Your task to perform on an android device: Open Google Image 0: 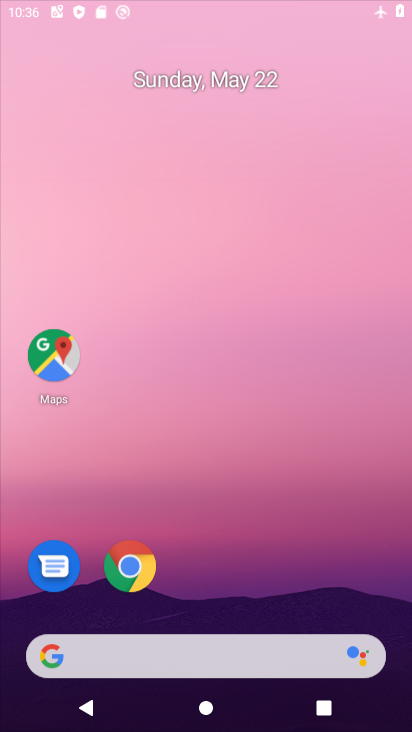
Step 0: drag from (356, 554) to (327, 85)
Your task to perform on an android device: Open Google Image 1: 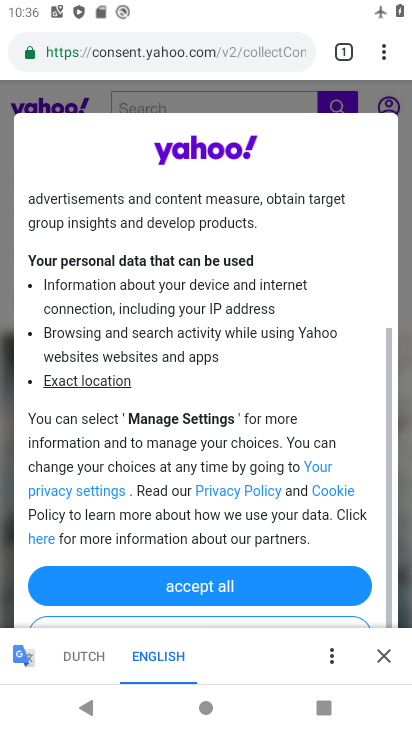
Step 1: press home button
Your task to perform on an android device: Open Google Image 2: 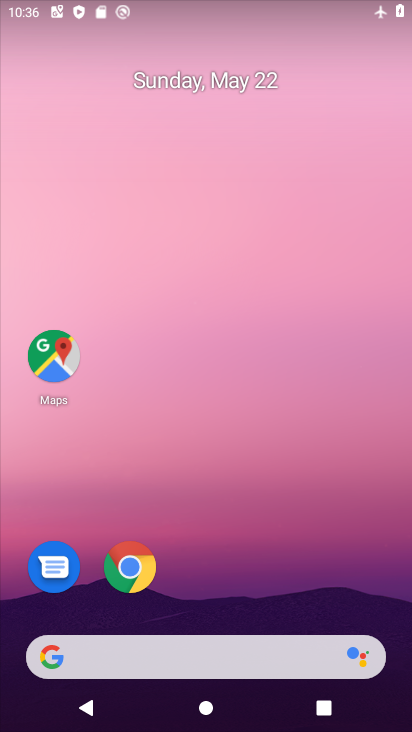
Step 2: drag from (365, 534) to (312, 68)
Your task to perform on an android device: Open Google Image 3: 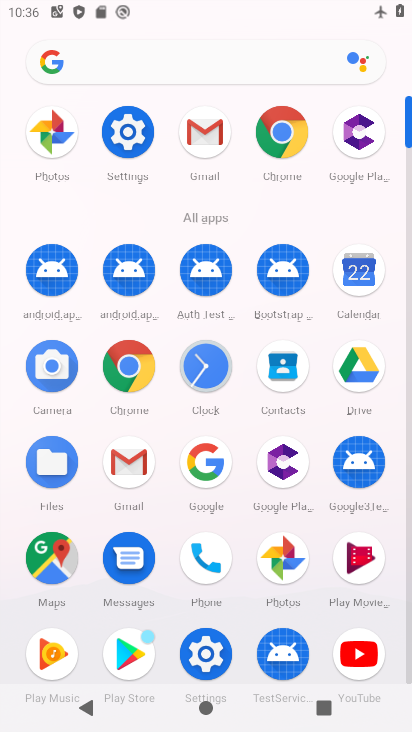
Step 3: drag from (212, 616) to (236, 270)
Your task to perform on an android device: Open Google Image 4: 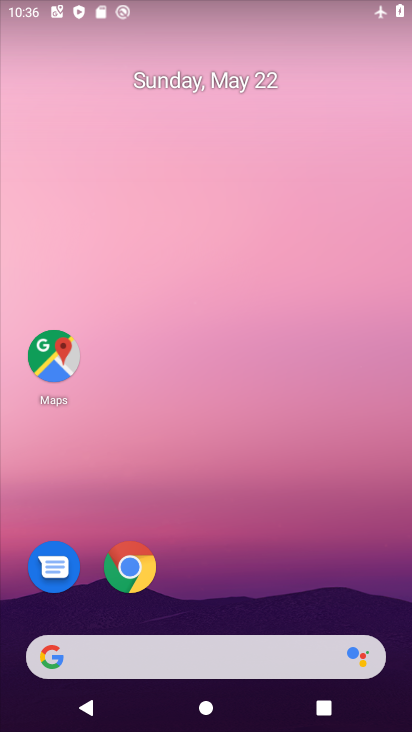
Step 4: drag from (249, 621) to (263, 357)
Your task to perform on an android device: Open Google Image 5: 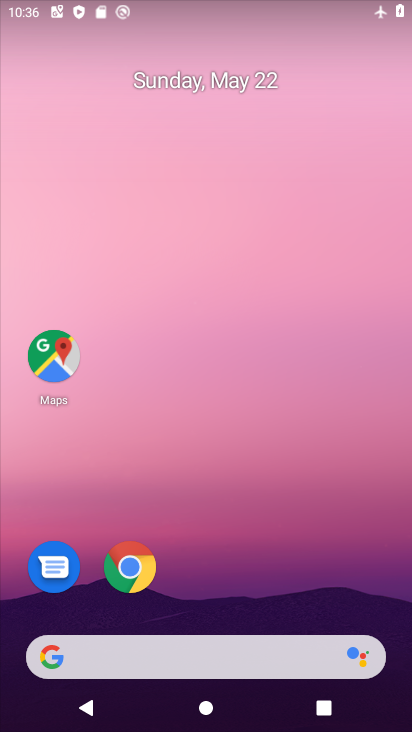
Step 5: drag from (375, 560) to (281, 32)
Your task to perform on an android device: Open Google Image 6: 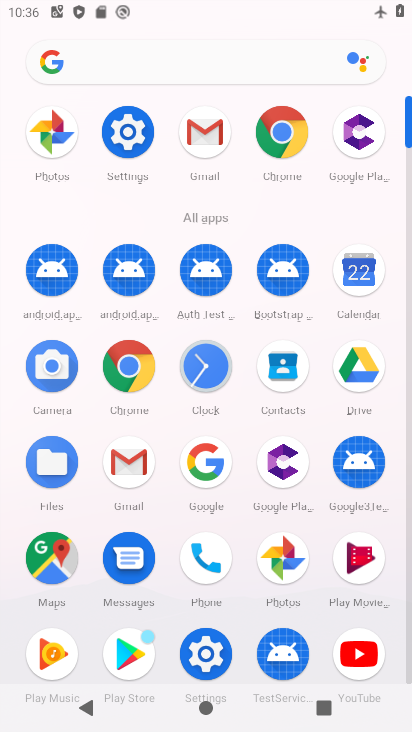
Step 6: click (225, 455)
Your task to perform on an android device: Open Google Image 7: 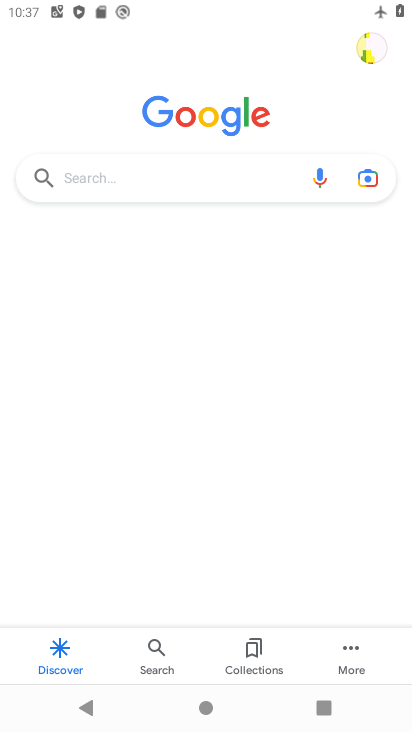
Step 7: task complete